Your task to perform on an android device: View the shopping cart on costco.com. Search for alienware aurora on costco.com, select the first entry, add it to the cart, then select checkout. Image 0: 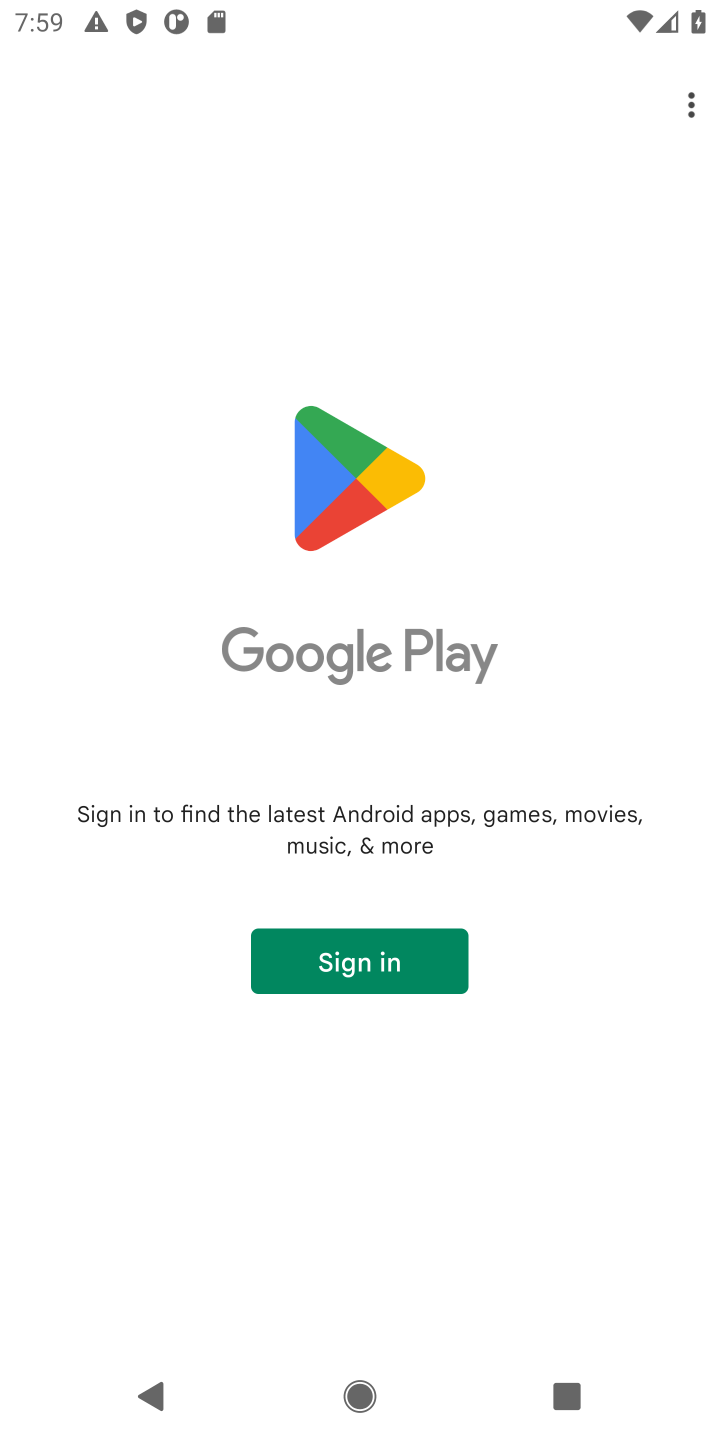
Step 0: press home button
Your task to perform on an android device: View the shopping cart on costco.com. Search for alienware aurora on costco.com, select the first entry, add it to the cart, then select checkout. Image 1: 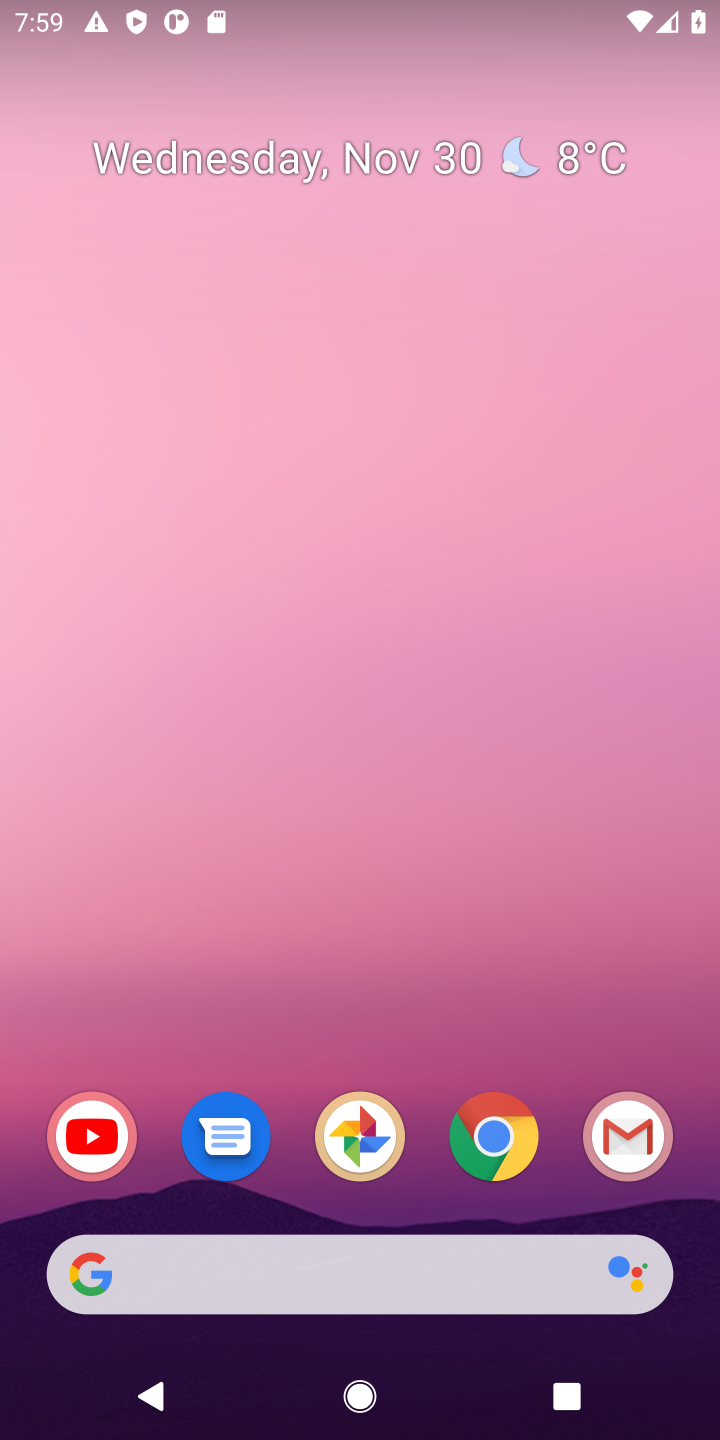
Step 1: click (506, 1141)
Your task to perform on an android device: View the shopping cart on costco.com. Search for alienware aurora on costco.com, select the first entry, add it to the cart, then select checkout. Image 2: 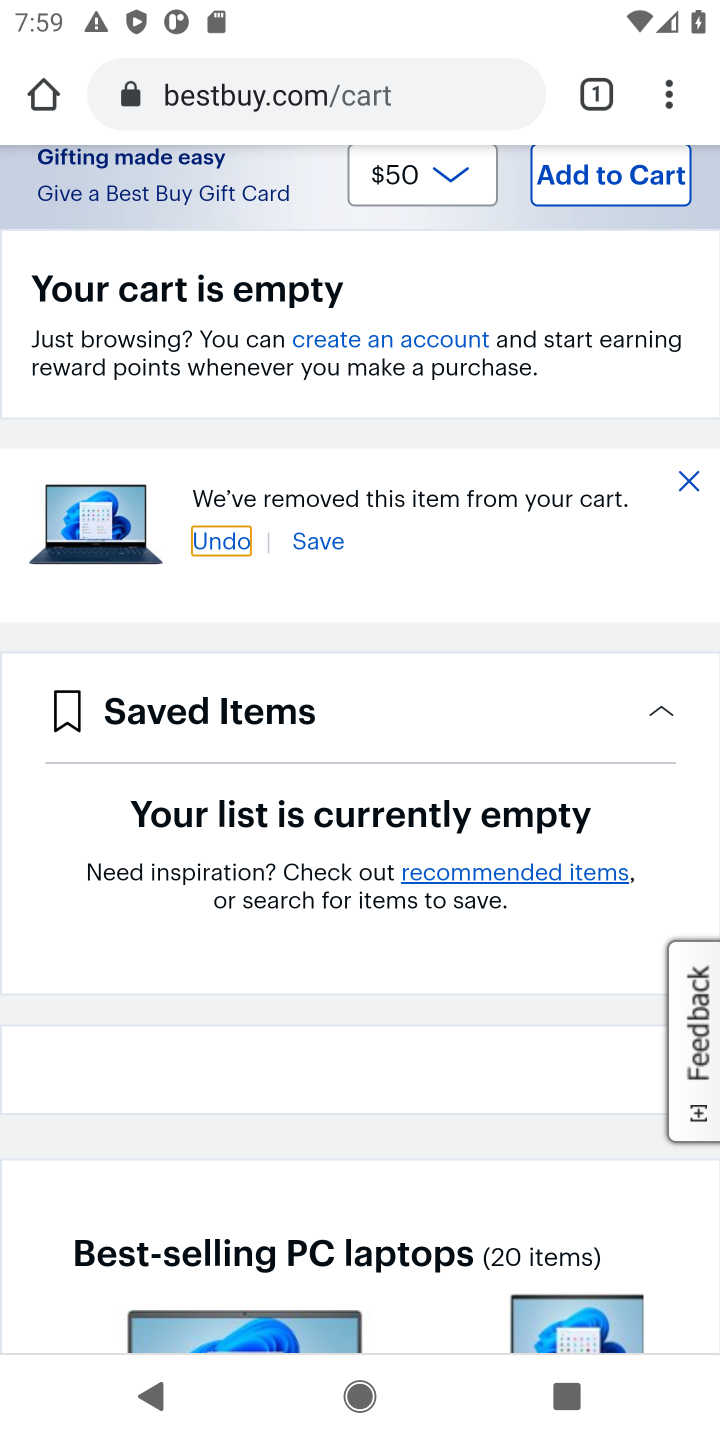
Step 2: click (278, 90)
Your task to perform on an android device: View the shopping cart on costco.com. Search for alienware aurora on costco.com, select the first entry, add it to the cart, then select checkout. Image 3: 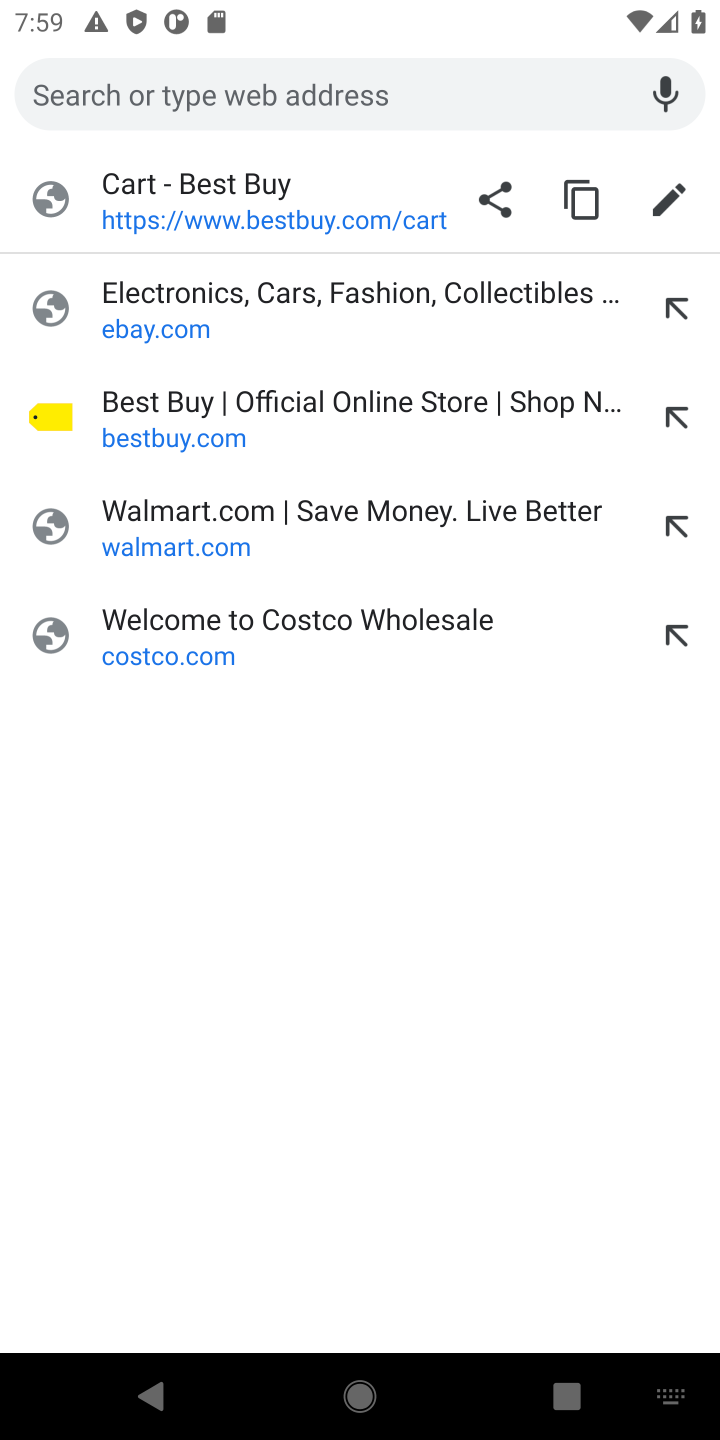
Step 3: click (146, 629)
Your task to perform on an android device: View the shopping cart on costco.com. Search for alienware aurora on costco.com, select the first entry, add it to the cart, then select checkout. Image 4: 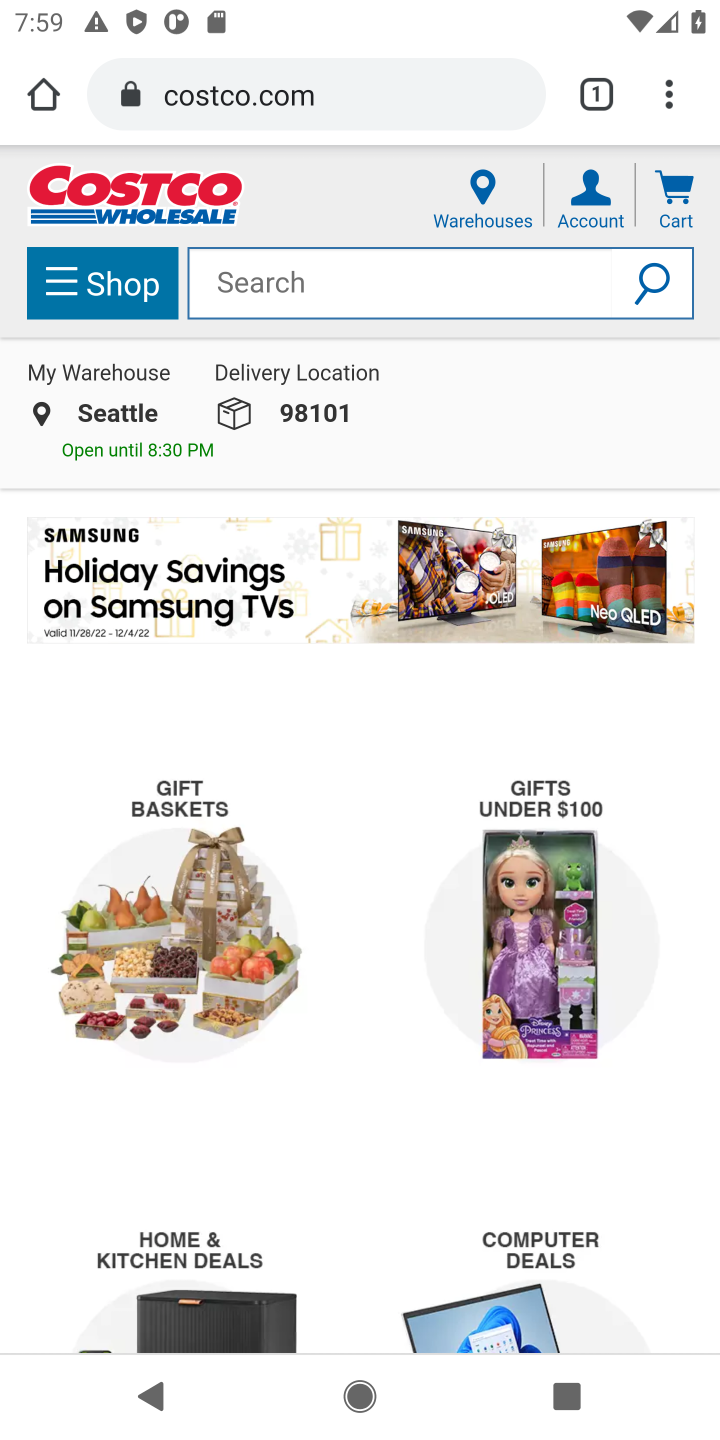
Step 4: click (679, 205)
Your task to perform on an android device: View the shopping cart on costco.com. Search for alienware aurora on costco.com, select the first entry, add it to the cart, then select checkout. Image 5: 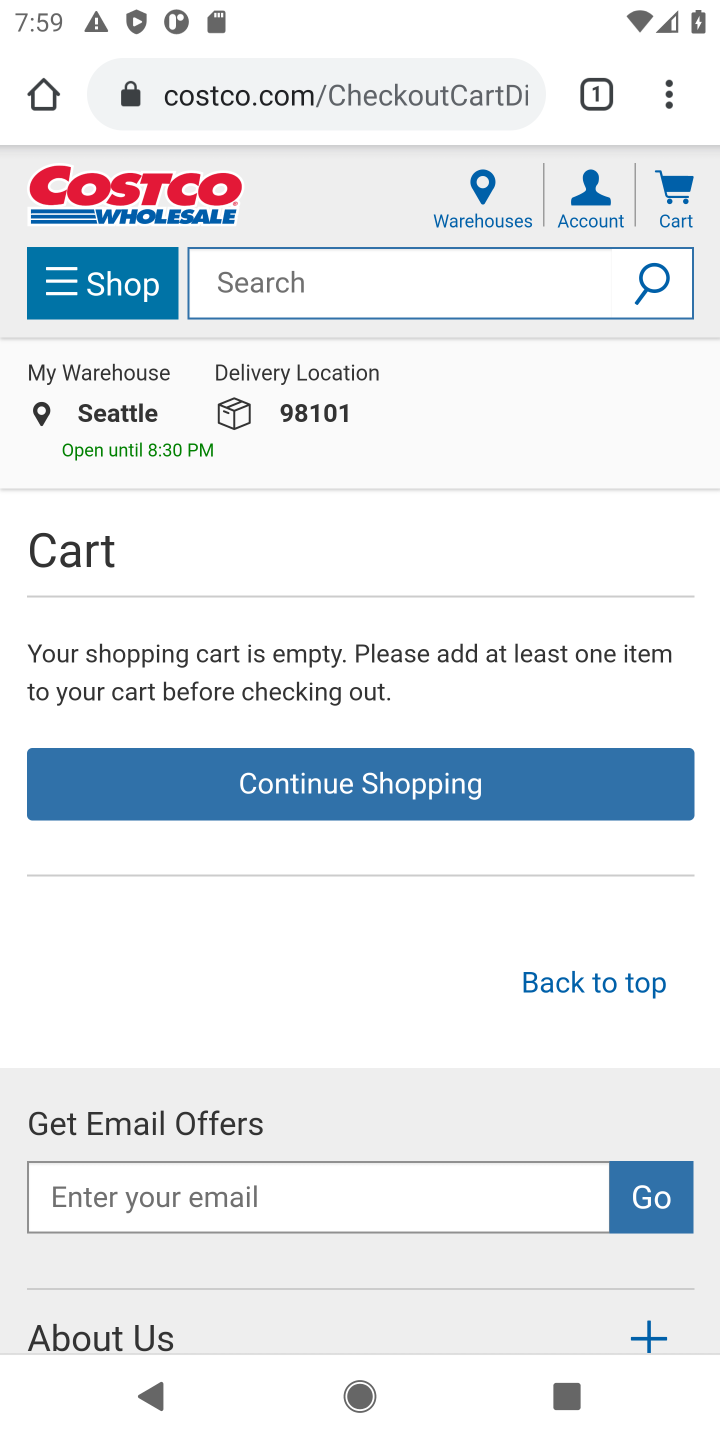
Step 5: click (276, 269)
Your task to perform on an android device: View the shopping cart on costco.com. Search for alienware aurora on costco.com, select the first entry, add it to the cart, then select checkout. Image 6: 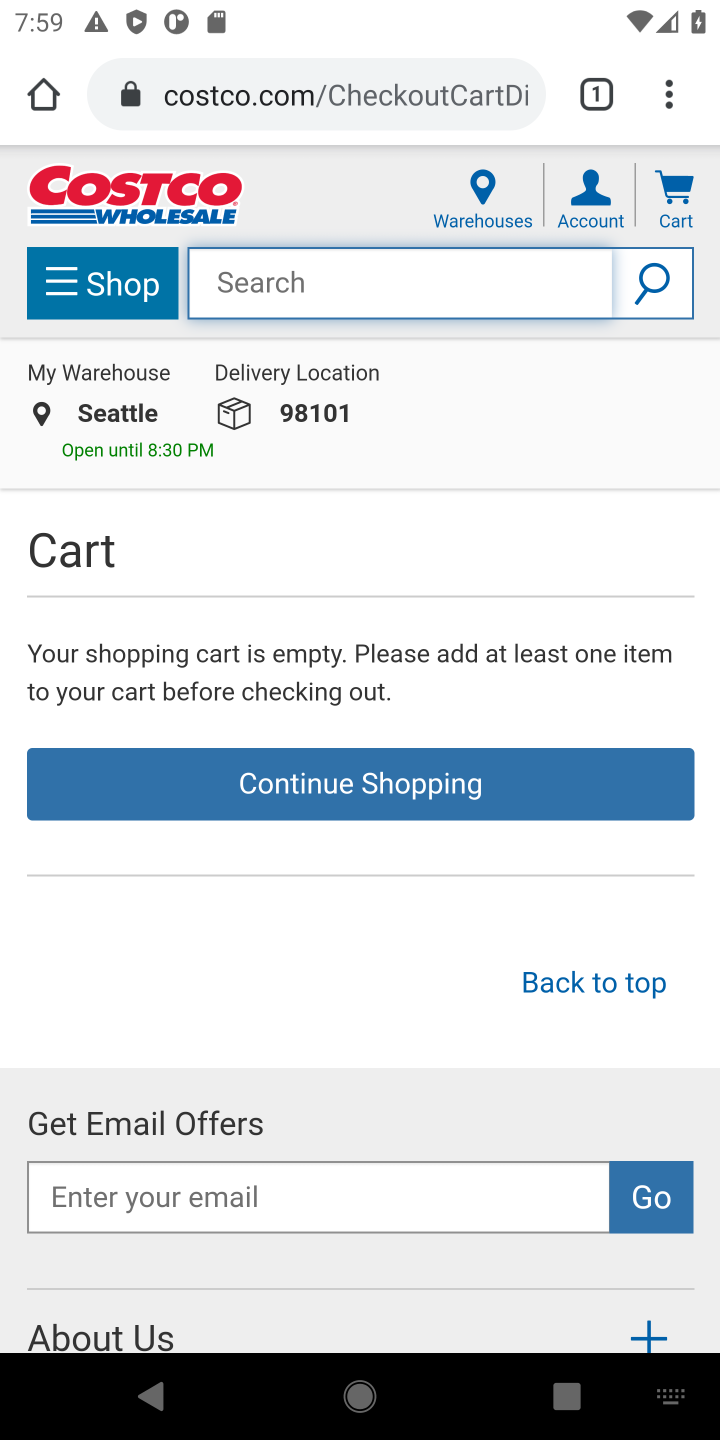
Step 6: type "alienware aurora"
Your task to perform on an android device: View the shopping cart on costco.com. Search for alienware aurora on costco.com, select the first entry, add it to the cart, then select checkout. Image 7: 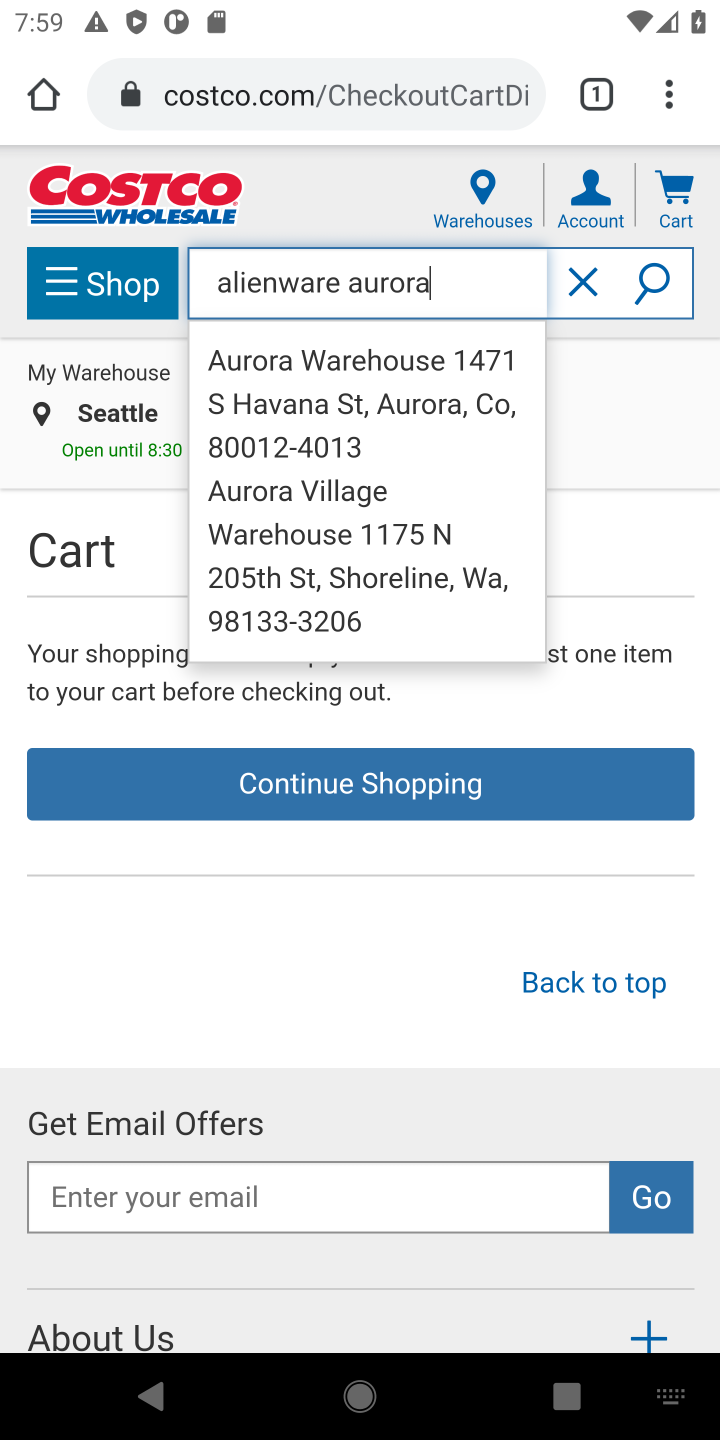
Step 7: click (657, 281)
Your task to perform on an android device: View the shopping cart on costco.com. Search for alienware aurora on costco.com, select the first entry, add it to the cart, then select checkout. Image 8: 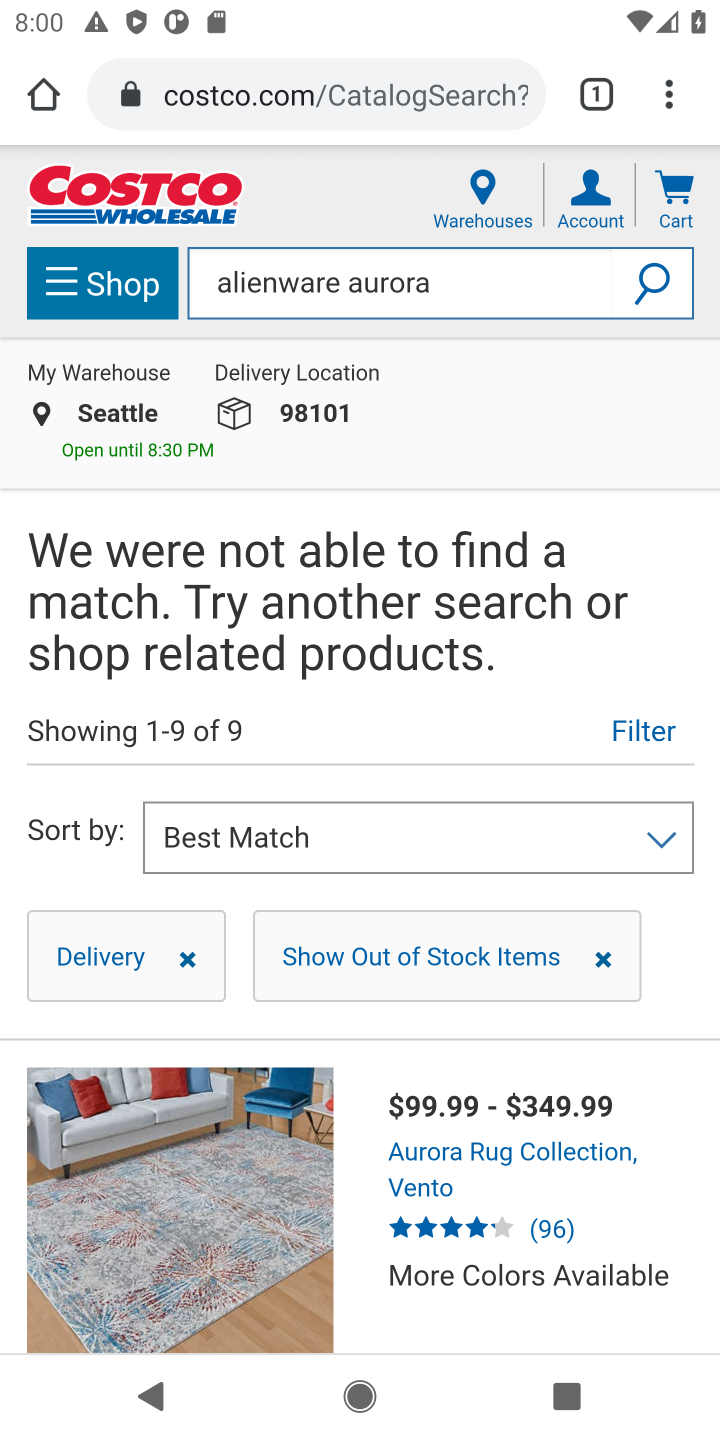
Step 8: task complete